Your task to perform on an android device: Clear the cart on ebay.com. Image 0: 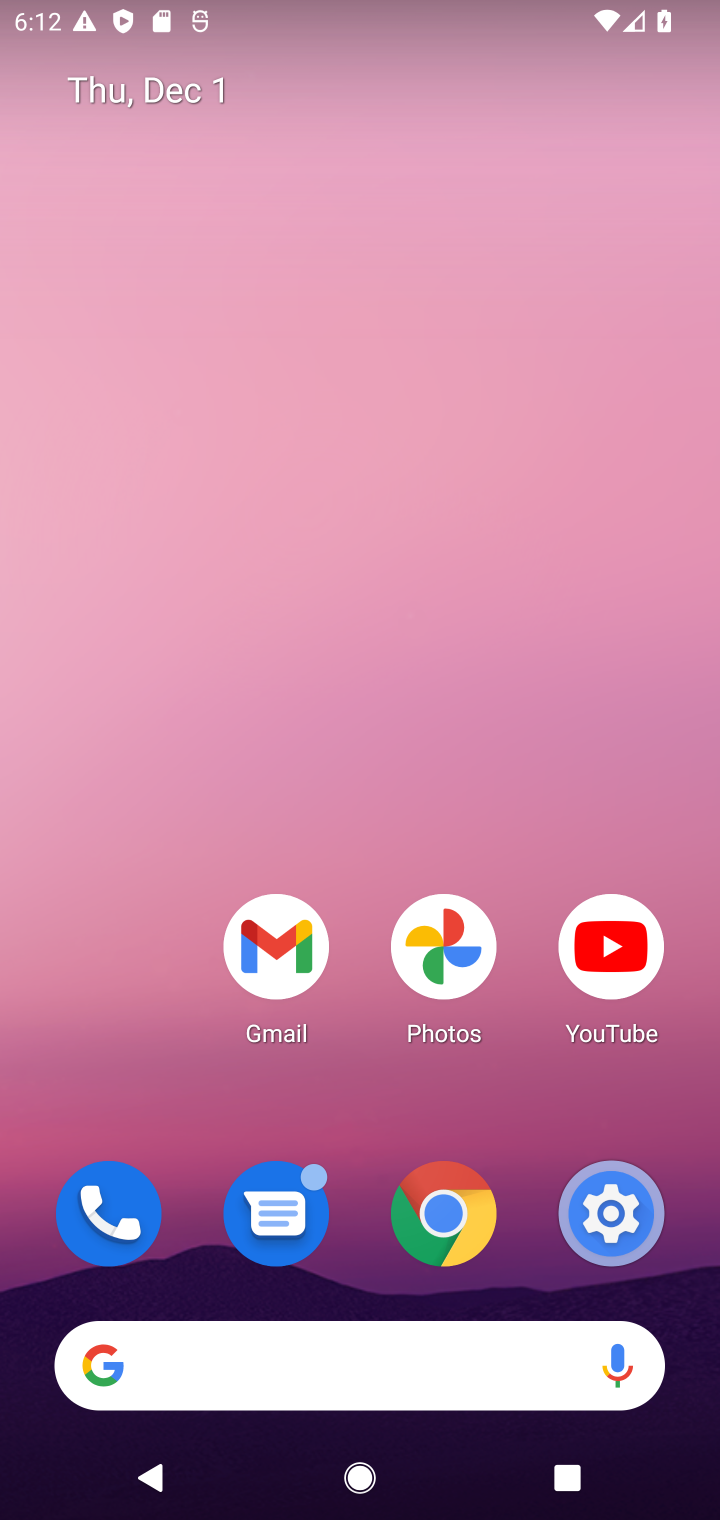
Step 0: click (454, 1232)
Your task to perform on an android device: Clear the cart on ebay.com. Image 1: 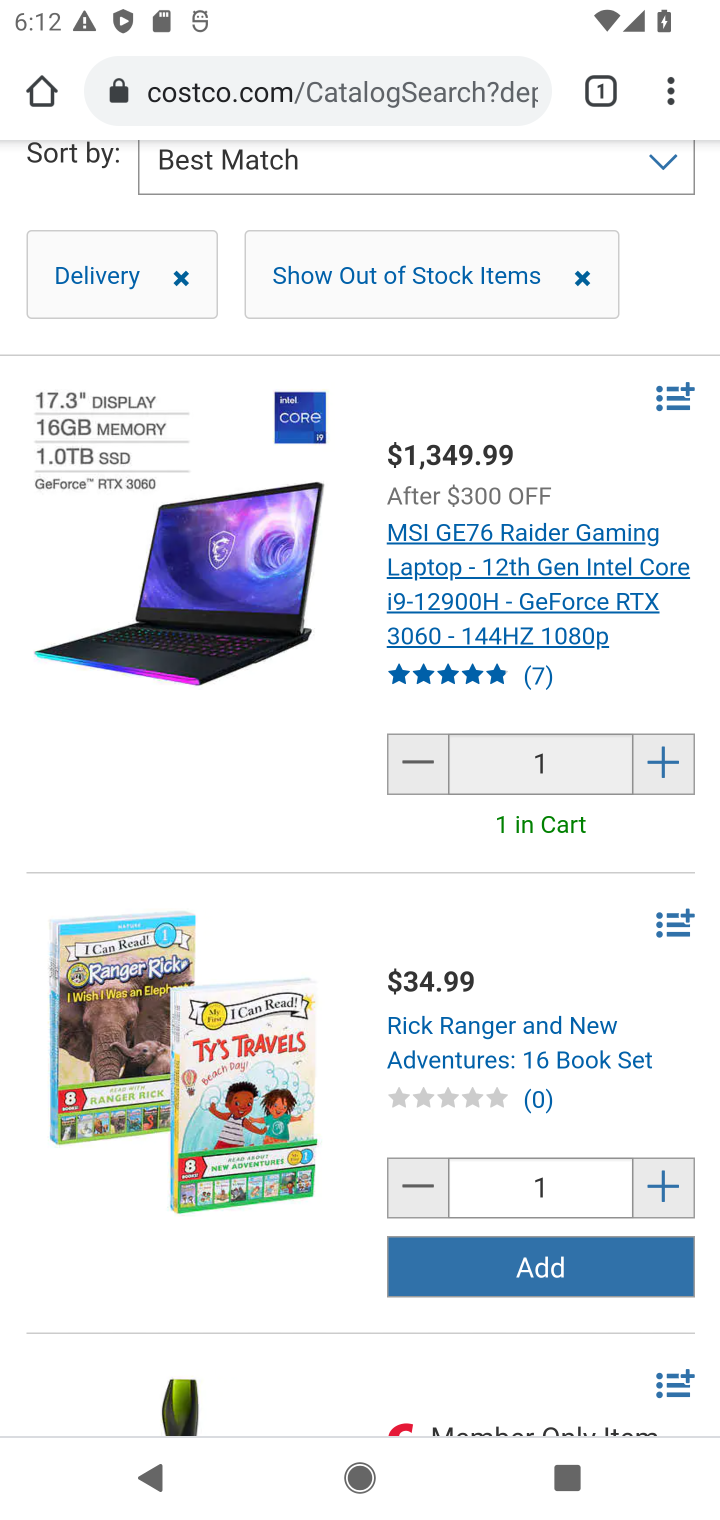
Step 1: task complete